Your task to perform on an android device: Open Yahoo.com Image 0: 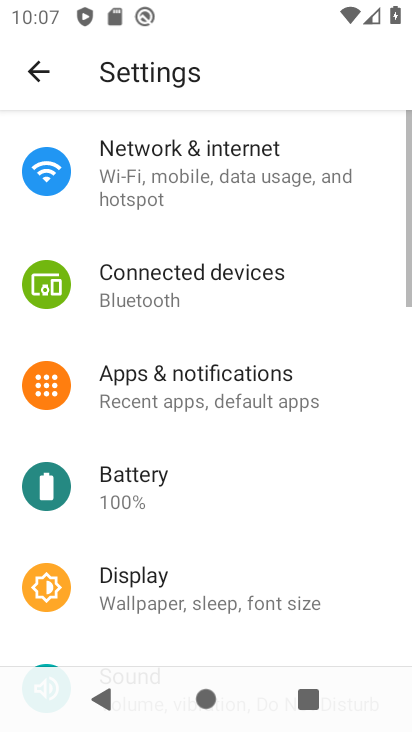
Step 0: press home button
Your task to perform on an android device: Open Yahoo.com Image 1: 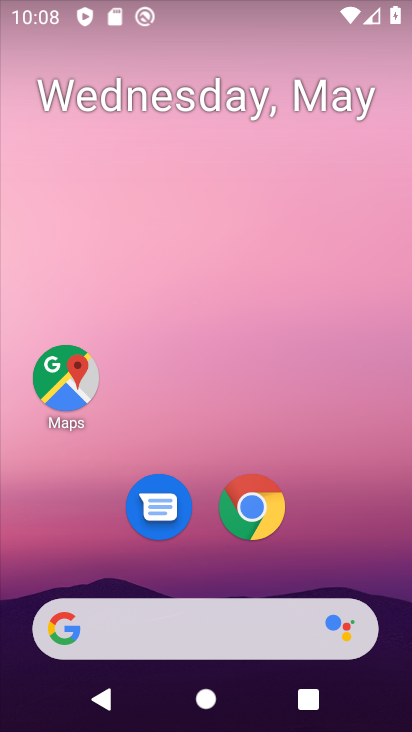
Step 1: click (248, 499)
Your task to perform on an android device: Open Yahoo.com Image 2: 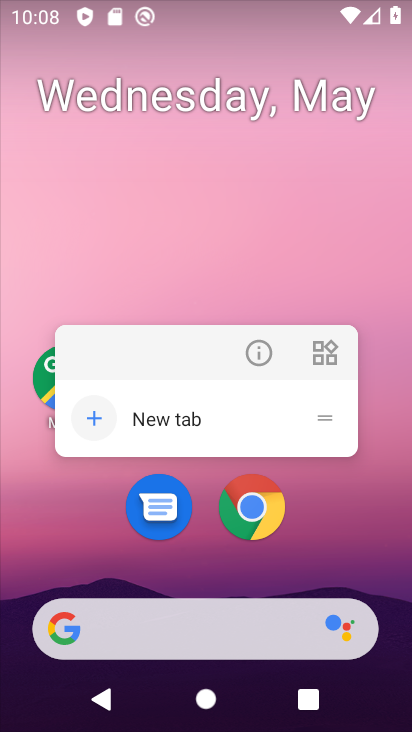
Step 2: click (252, 496)
Your task to perform on an android device: Open Yahoo.com Image 3: 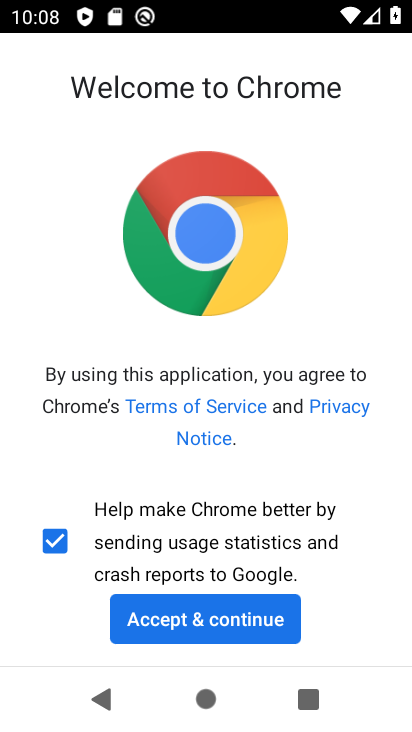
Step 3: click (195, 610)
Your task to perform on an android device: Open Yahoo.com Image 4: 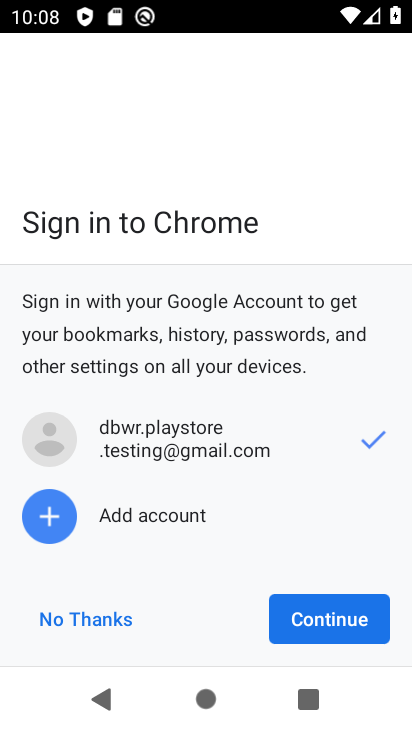
Step 4: click (329, 623)
Your task to perform on an android device: Open Yahoo.com Image 5: 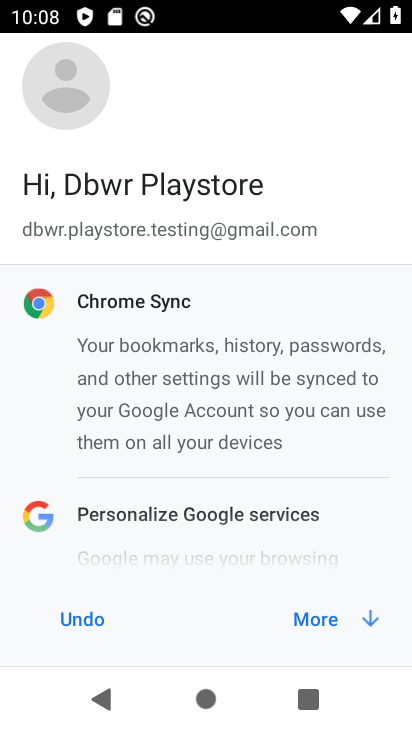
Step 5: click (330, 618)
Your task to perform on an android device: Open Yahoo.com Image 6: 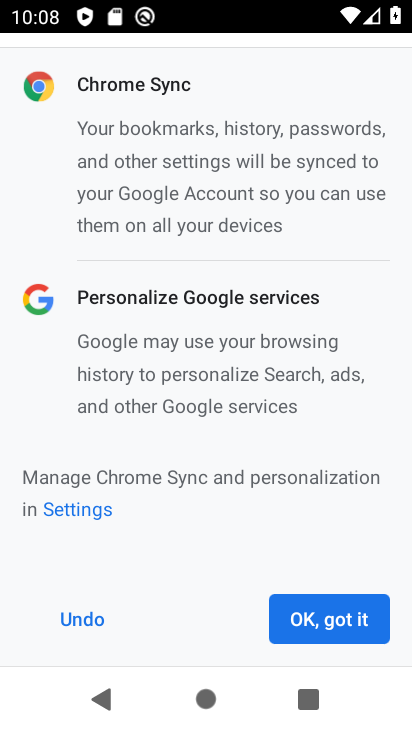
Step 6: click (326, 613)
Your task to perform on an android device: Open Yahoo.com Image 7: 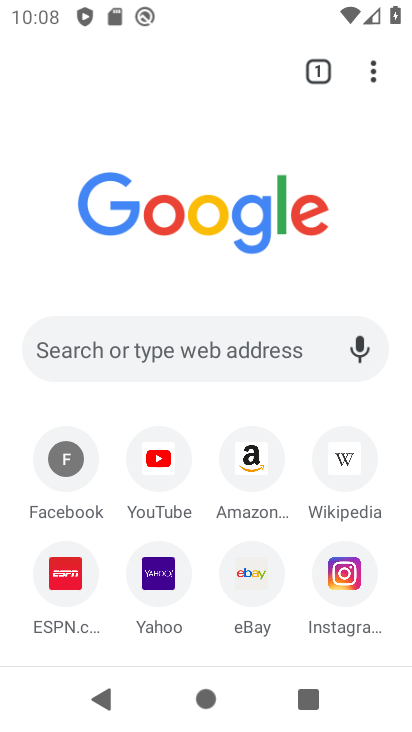
Step 7: click (161, 575)
Your task to perform on an android device: Open Yahoo.com Image 8: 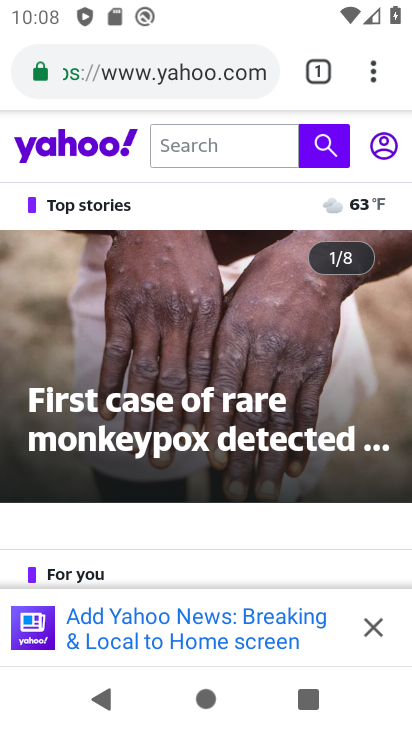
Step 8: click (370, 632)
Your task to perform on an android device: Open Yahoo.com Image 9: 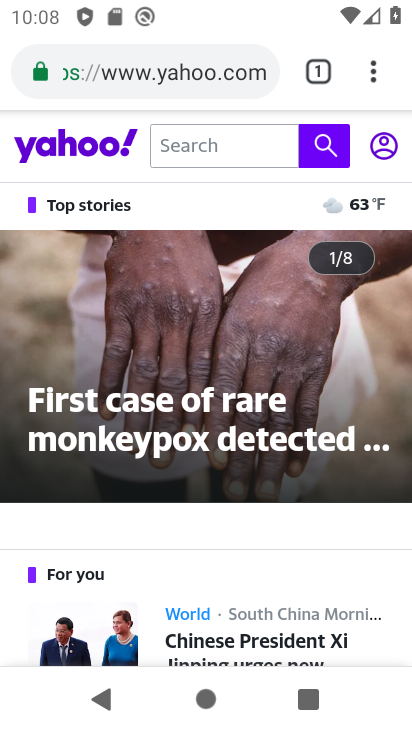
Step 9: task complete